Your task to perform on an android device: turn on sleep mode Image 0: 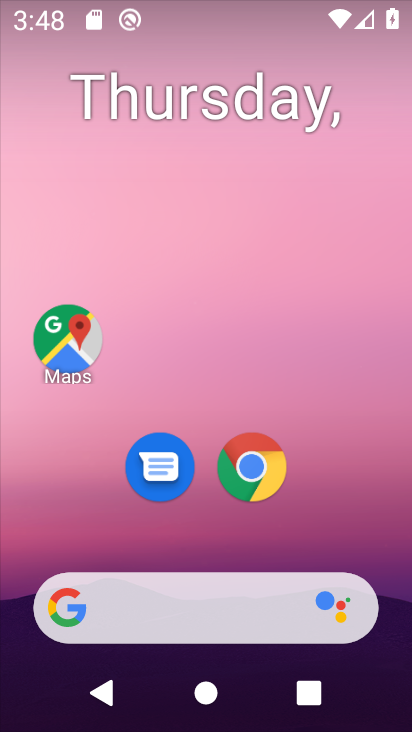
Step 0: drag from (245, 421) to (316, 80)
Your task to perform on an android device: turn on sleep mode Image 1: 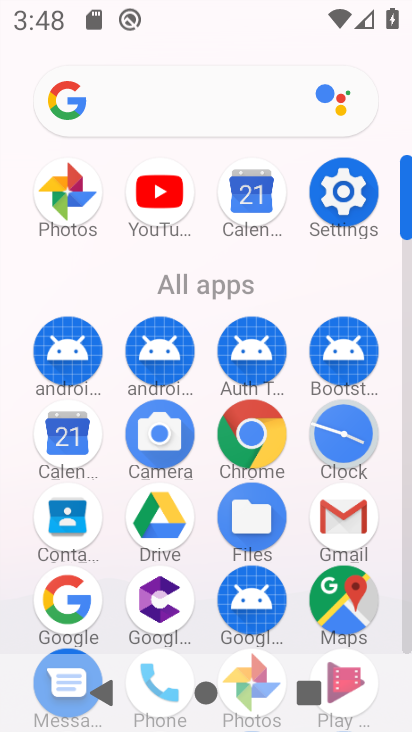
Step 1: click (360, 210)
Your task to perform on an android device: turn on sleep mode Image 2: 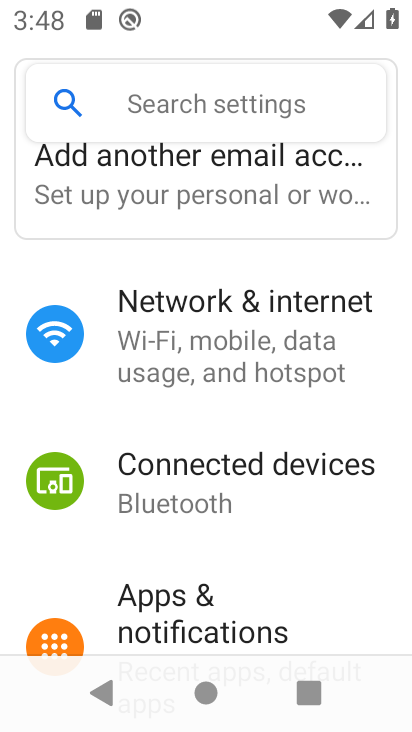
Step 2: click (288, 106)
Your task to perform on an android device: turn on sleep mode Image 3: 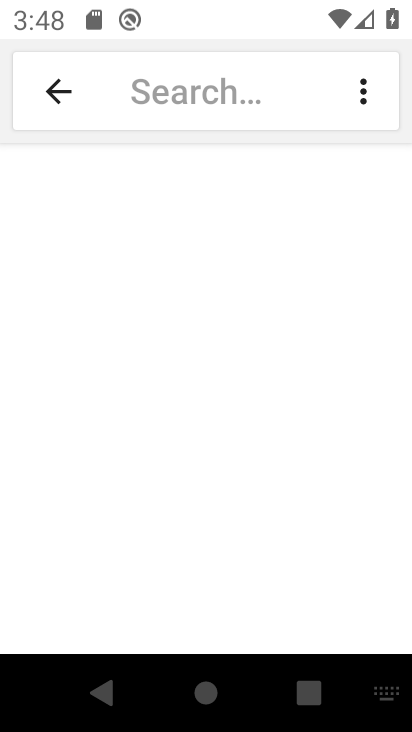
Step 3: type "sleep mode"
Your task to perform on an android device: turn on sleep mode Image 4: 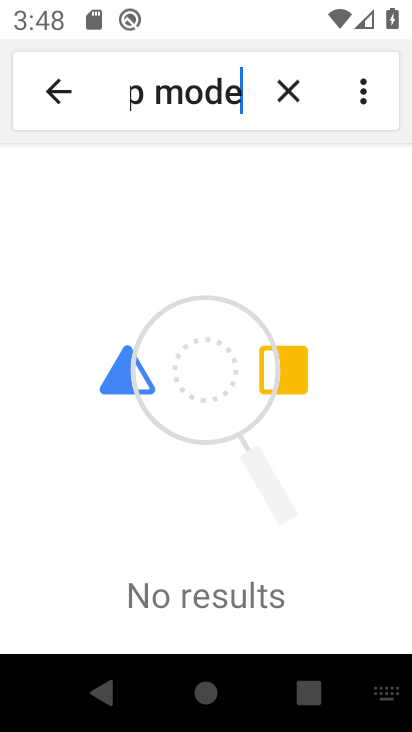
Step 4: task complete